Your task to perform on an android device: Open the map Image 0: 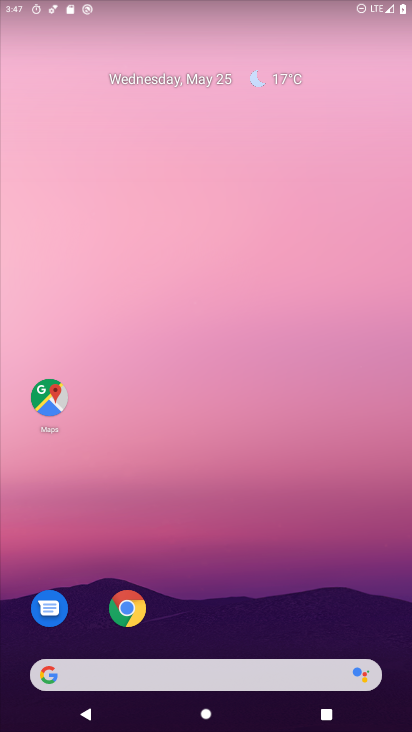
Step 0: click (51, 406)
Your task to perform on an android device: Open the map Image 1: 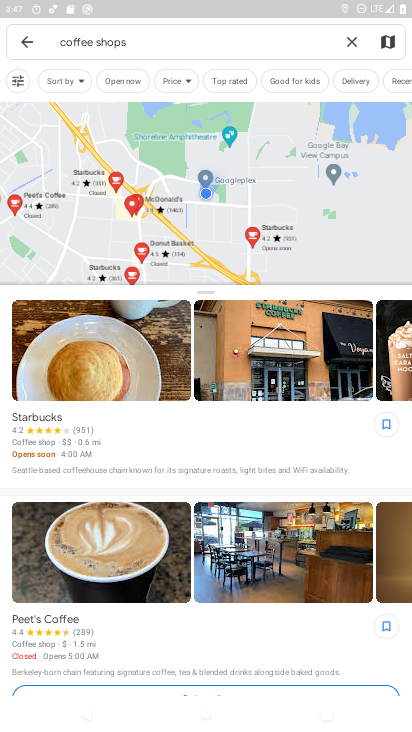
Step 1: task complete